Your task to perform on an android device: Open display settings Image 0: 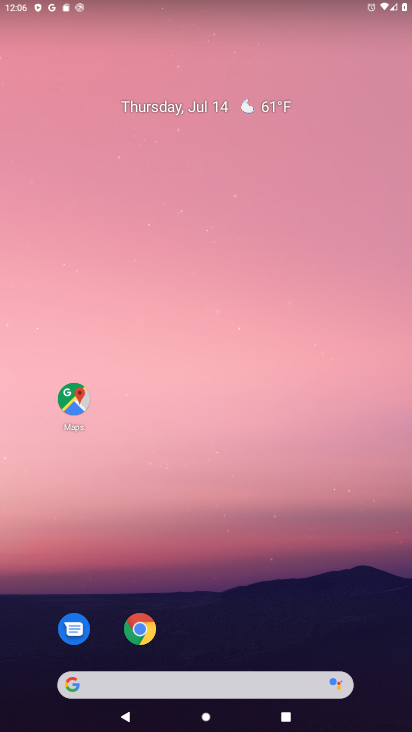
Step 0: drag from (219, 657) to (296, 124)
Your task to perform on an android device: Open display settings Image 1: 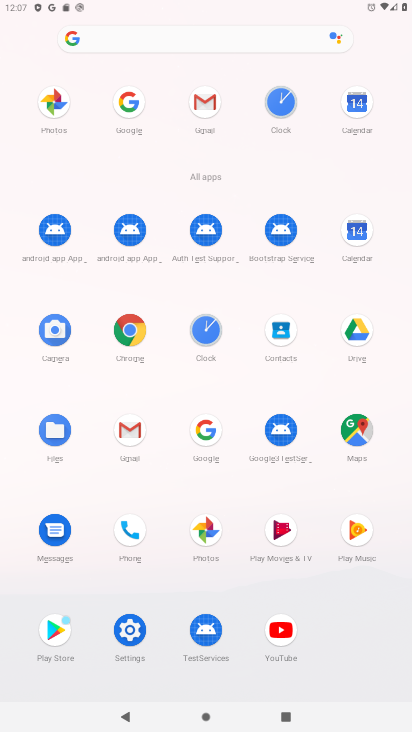
Step 1: click (130, 628)
Your task to perform on an android device: Open display settings Image 2: 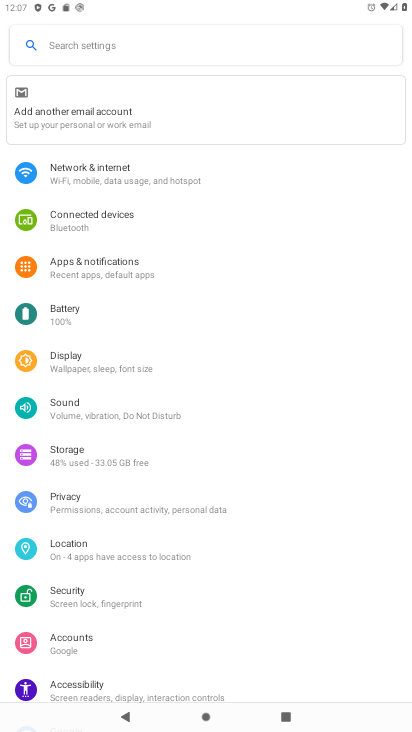
Step 2: click (100, 367)
Your task to perform on an android device: Open display settings Image 3: 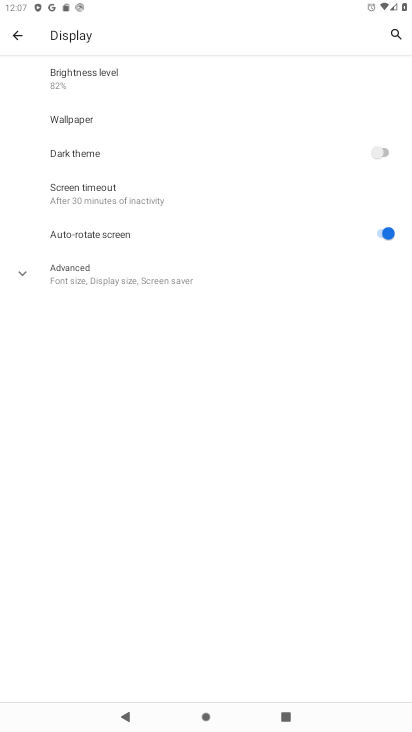
Step 3: task complete